Your task to perform on an android device: open app "VLC for Android" (install if not already installed) and enter user name: "Yves@outlook.com" and password: "internally" Image 0: 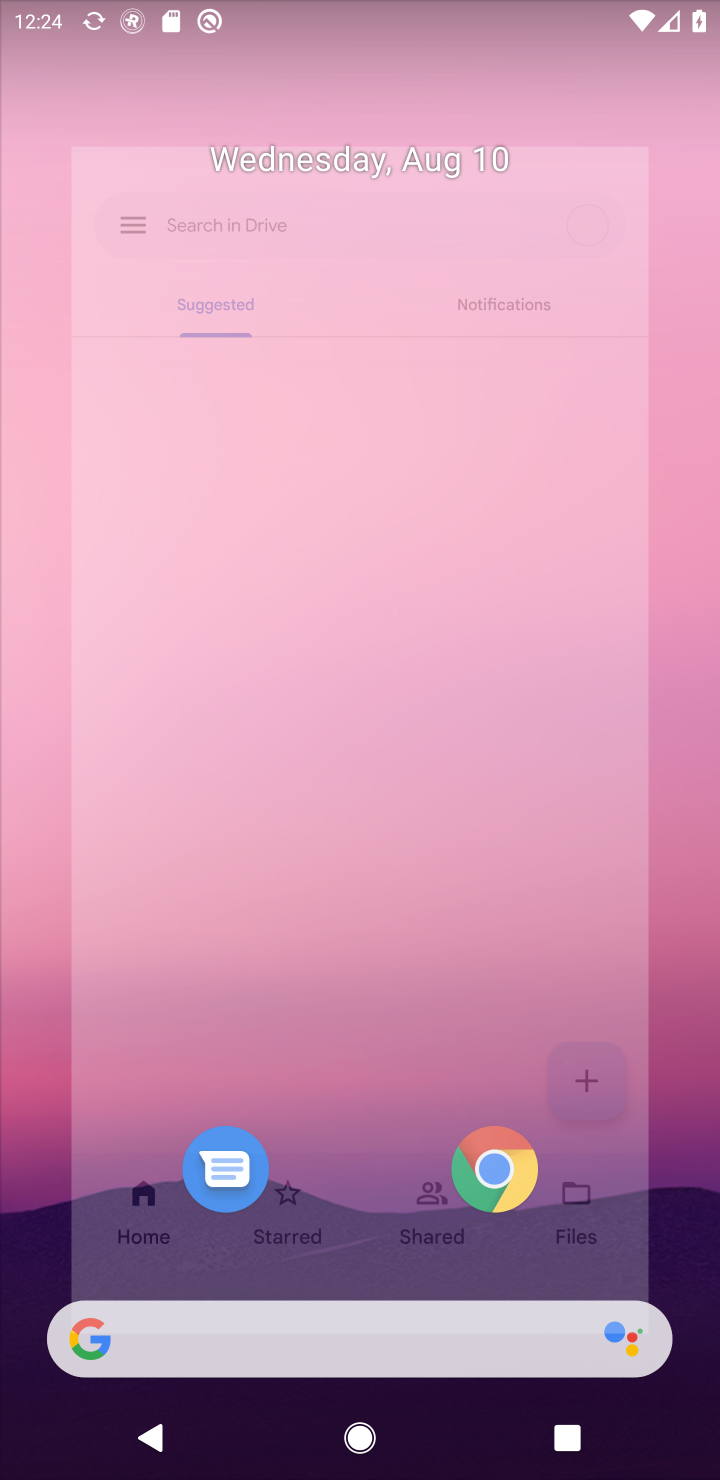
Step 0: press home button
Your task to perform on an android device: open app "VLC for Android" (install if not already installed) and enter user name: "Yves@outlook.com" and password: "internally" Image 1: 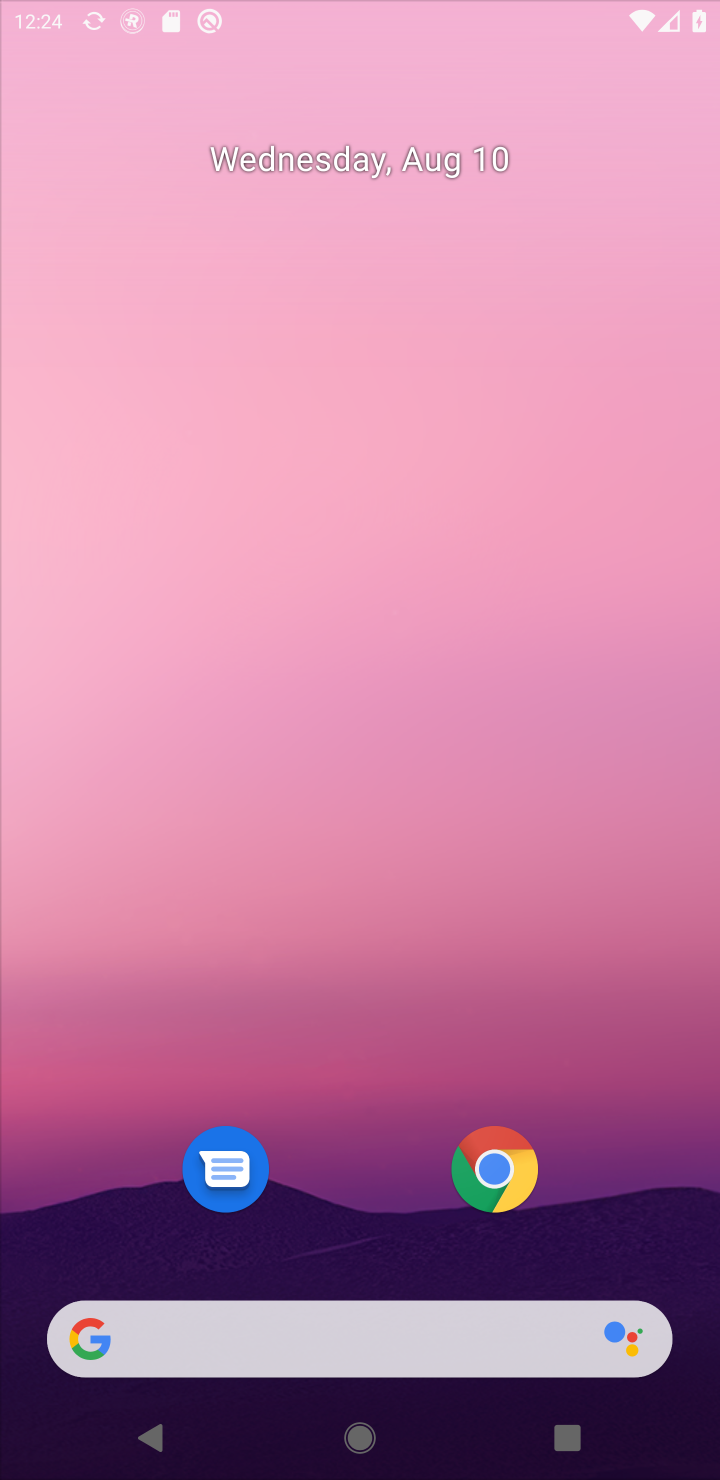
Step 1: press home button
Your task to perform on an android device: open app "VLC for Android" (install if not already installed) and enter user name: "Yves@outlook.com" and password: "internally" Image 2: 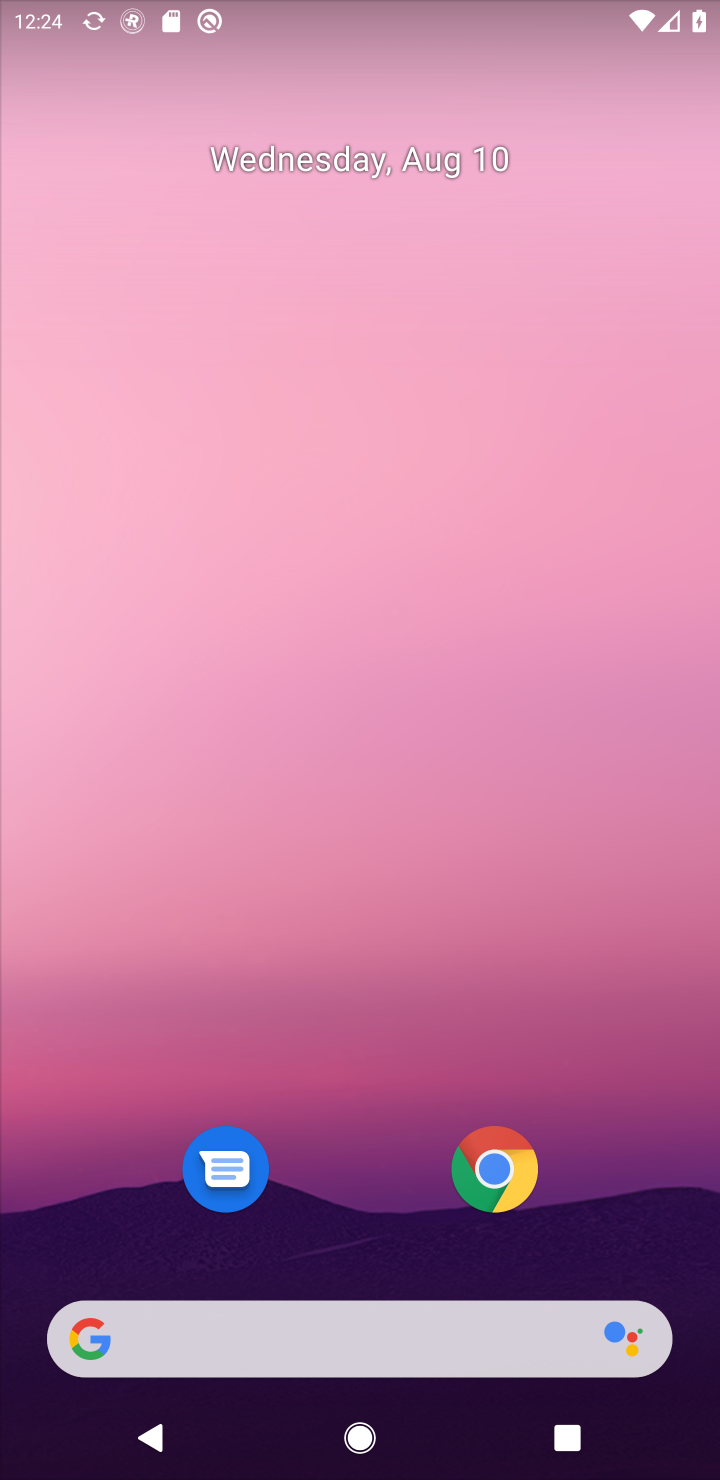
Step 2: drag from (636, 1148) to (636, 126)
Your task to perform on an android device: open app "VLC for Android" (install if not already installed) and enter user name: "Yves@outlook.com" and password: "internally" Image 3: 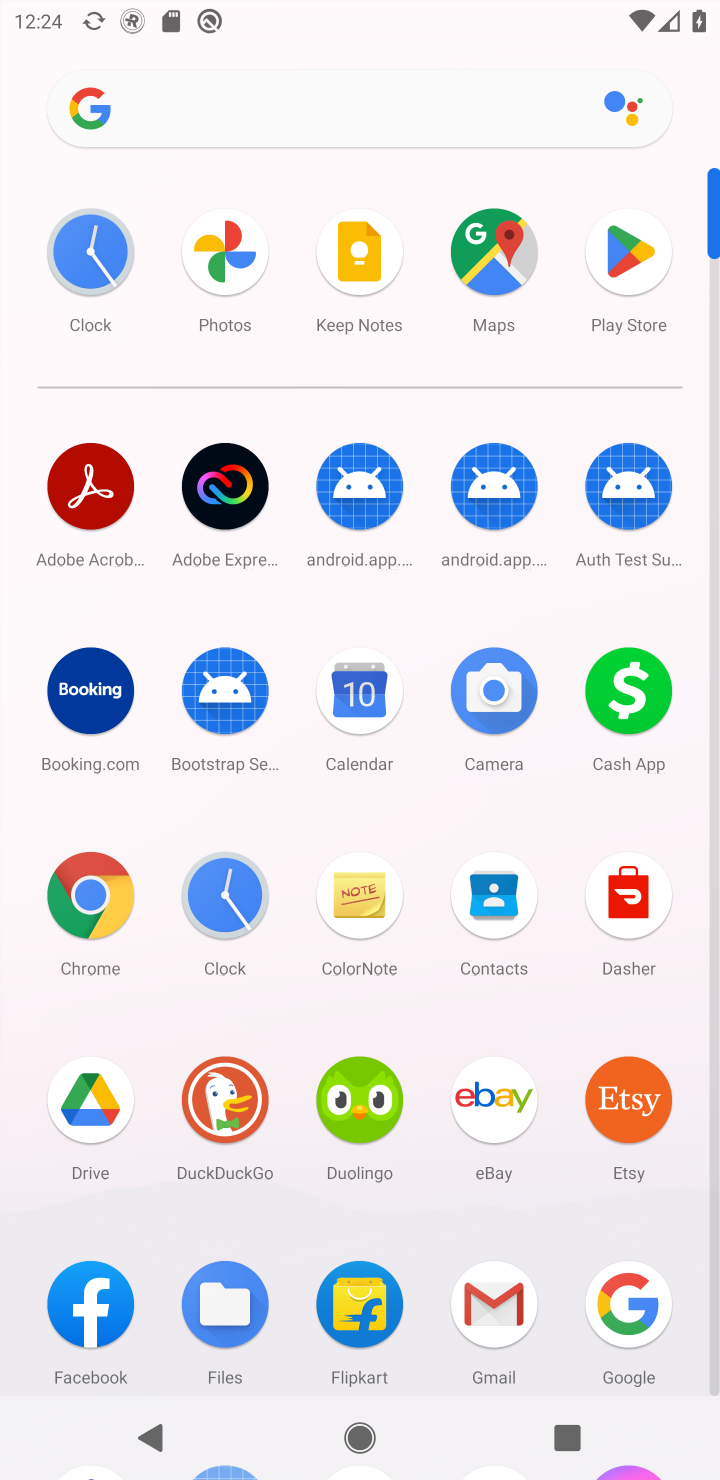
Step 3: click (622, 255)
Your task to perform on an android device: open app "VLC for Android" (install if not already installed) and enter user name: "Yves@outlook.com" and password: "internally" Image 4: 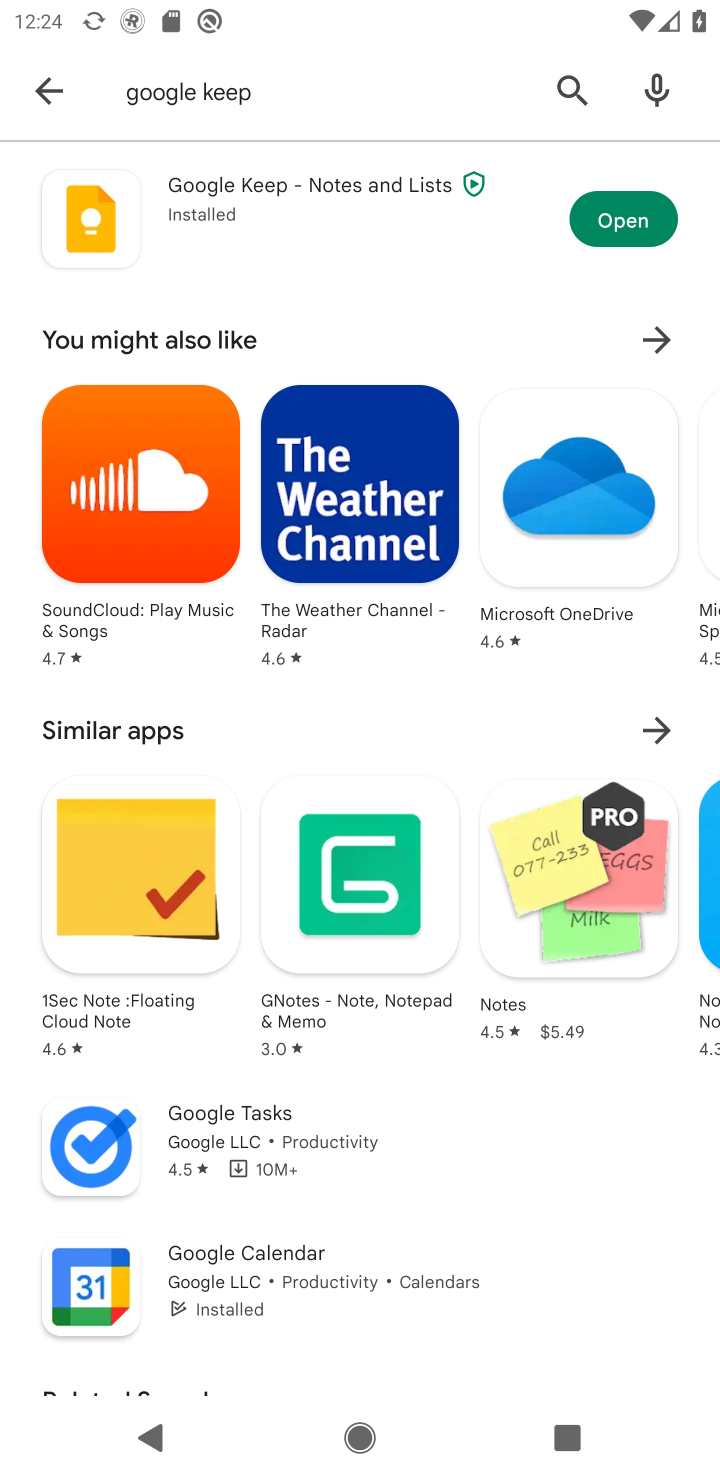
Step 4: click (568, 82)
Your task to perform on an android device: open app "VLC for Android" (install if not already installed) and enter user name: "Yves@outlook.com" and password: "internally" Image 5: 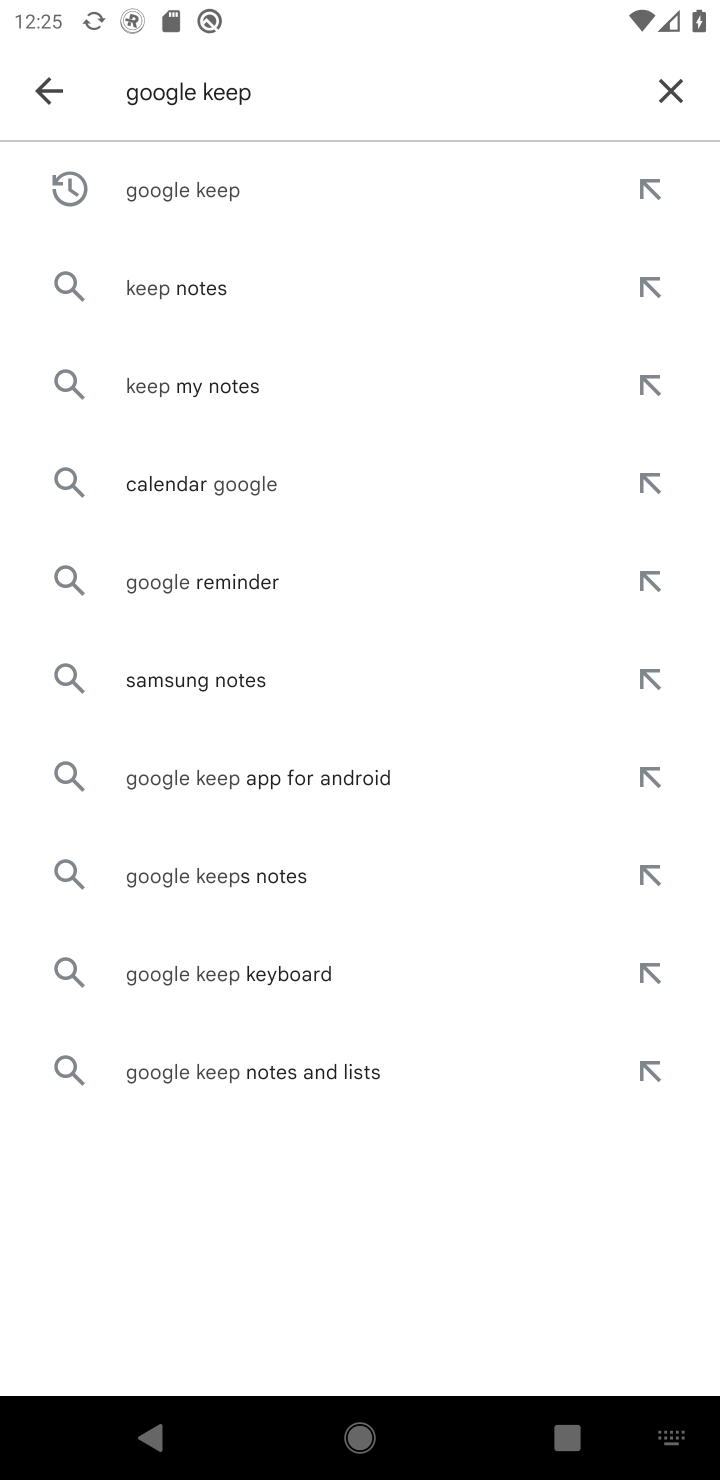
Step 5: click (668, 87)
Your task to perform on an android device: open app "VLC for Android" (install if not already installed) and enter user name: "Yves@outlook.com" and password: "internally" Image 6: 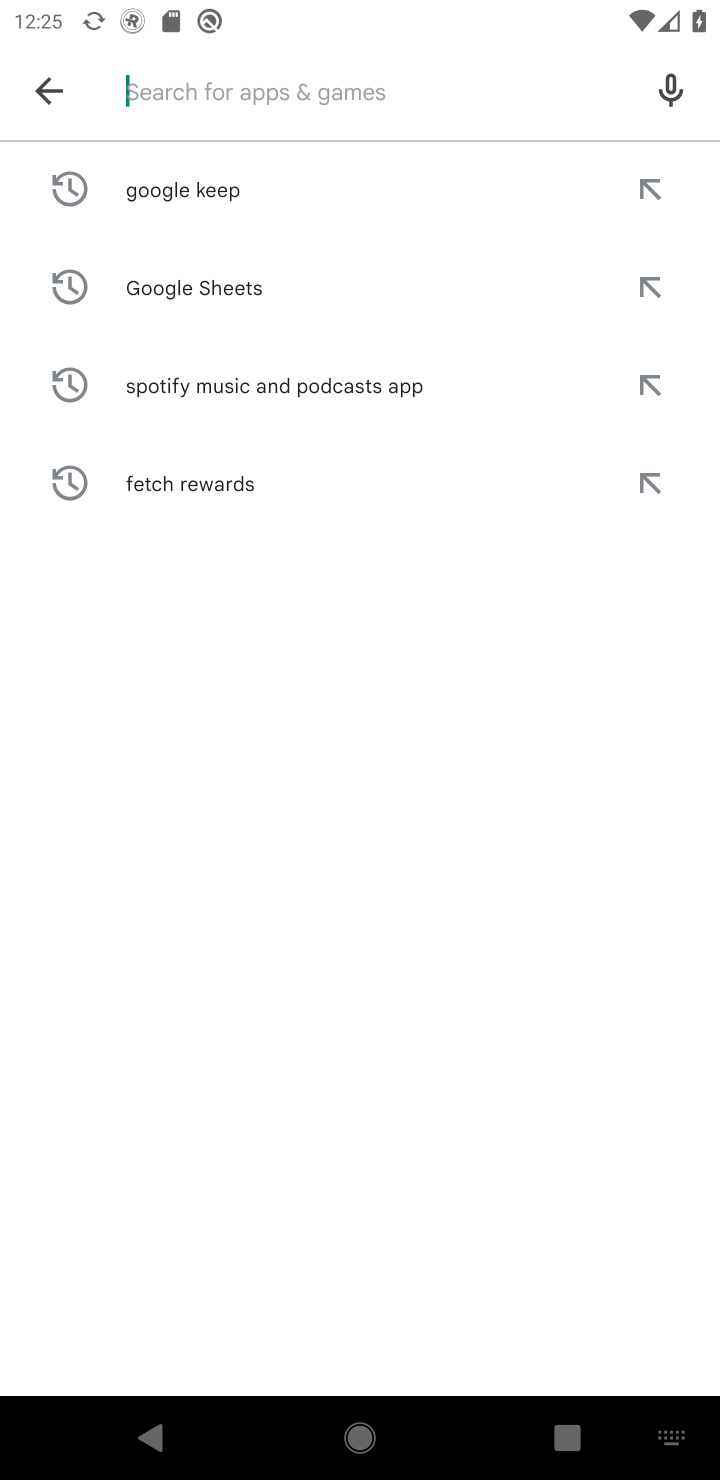
Step 6: press enter
Your task to perform on an android device: open app "VLC for Android" (install if not already installed) and enter user name: "Yves@outlook.com" and password: "internally" Image 7: 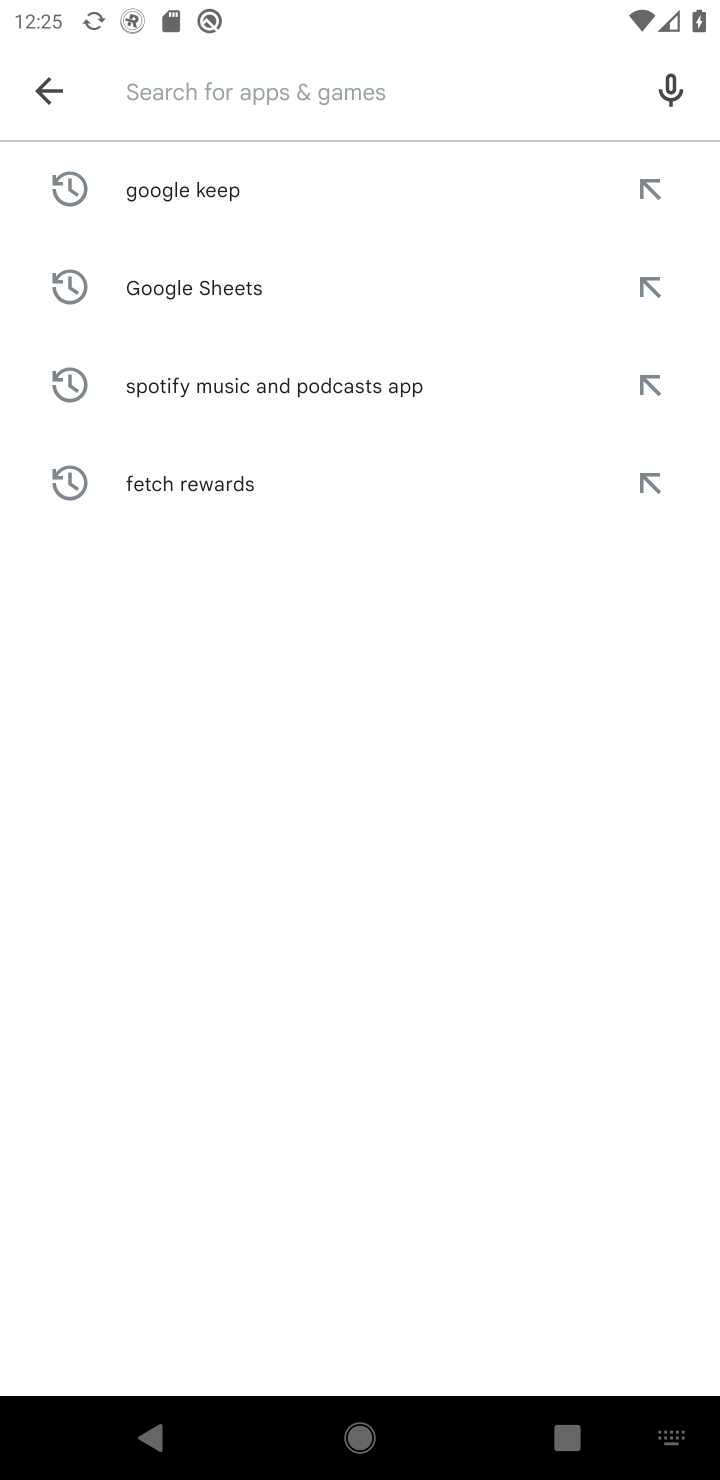
Step 7: type "vlc for android "
Your task to perform on an android device: open app "VLC for Android" (install if not already installed) and enter user name: "Yves@outlook.com" and password: "internally" Image 8: 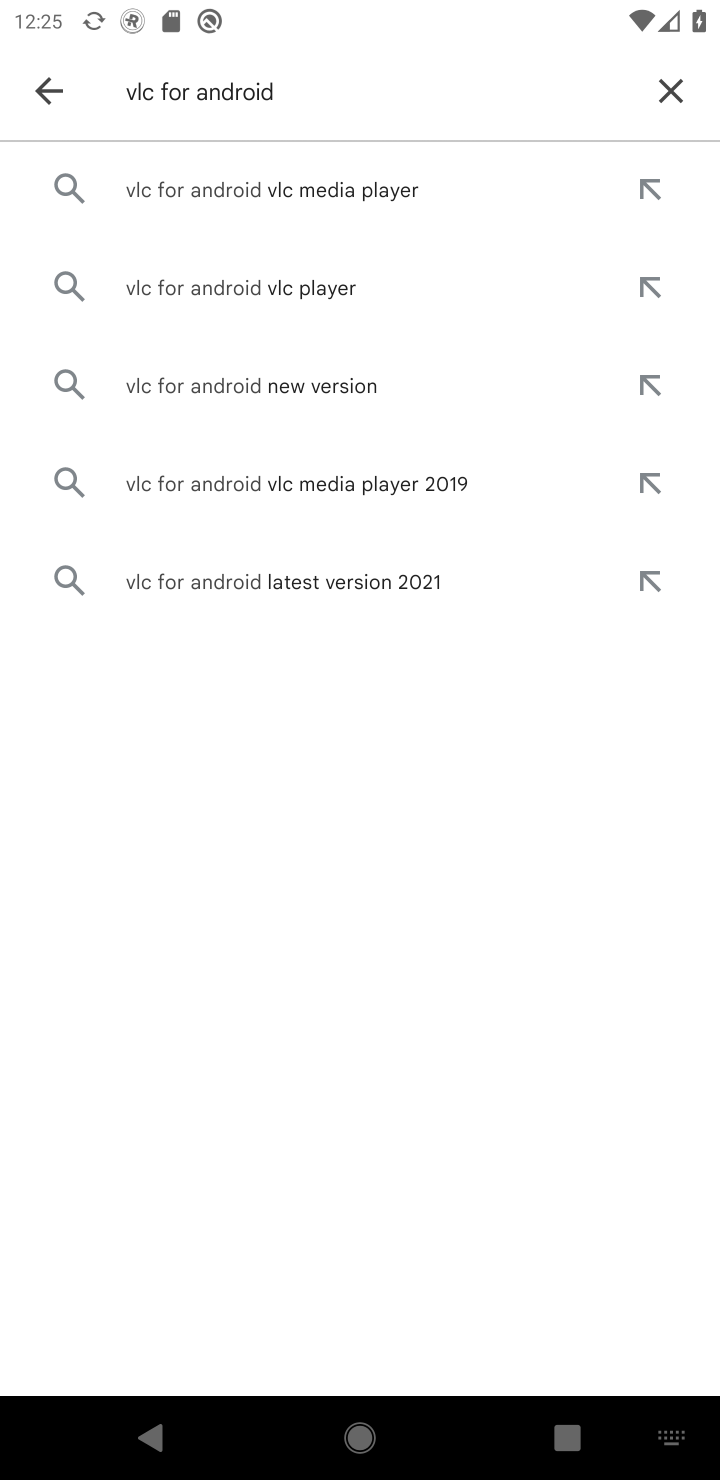
Step 8: click (360, 292)
Your task to perform on an android device: open app "VLC for Android" (install if not already installed) and enter user name: "Yves@outlook.com" and password: "internally" Image 9: 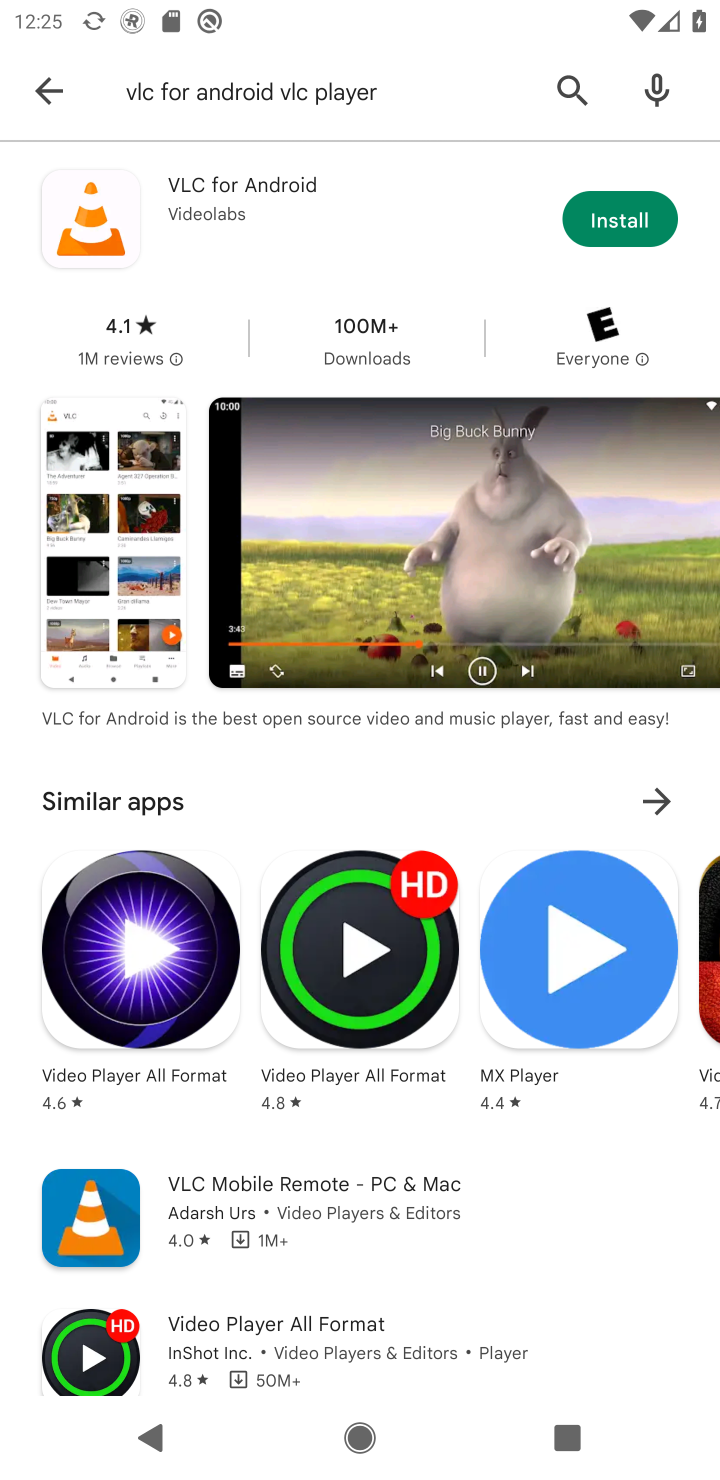
Step 9: click (641, 217)
Your task to perform on an android device: open app "VLC for Android" (install if not already installed) and enter user name: "Yves@outlook.com" and password: "internally" Image 10: 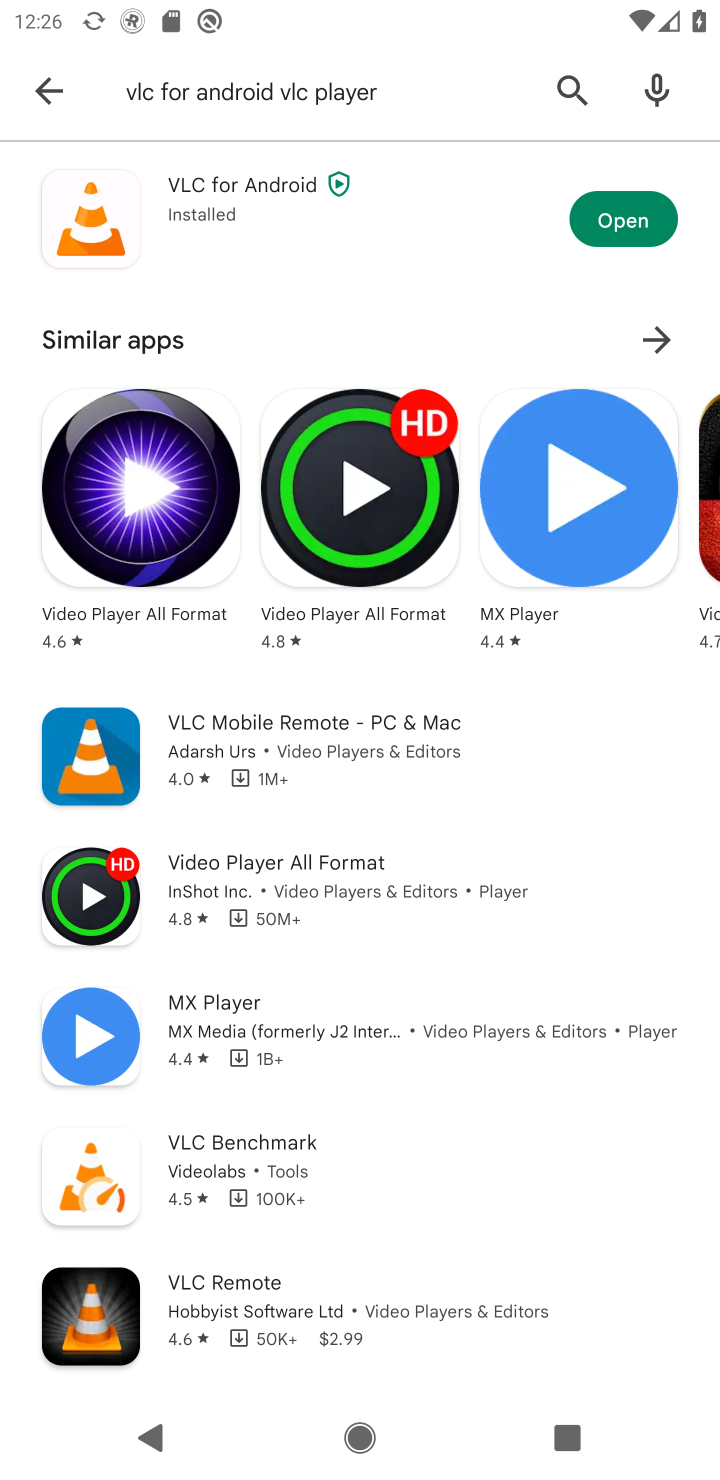
Step 10: click (630, 218)
Your task to perform on an android device: open app "VLC for Android" (install if not already installed) and enter user name: "Yves@outlook.com" and password: "internally" Image 11: 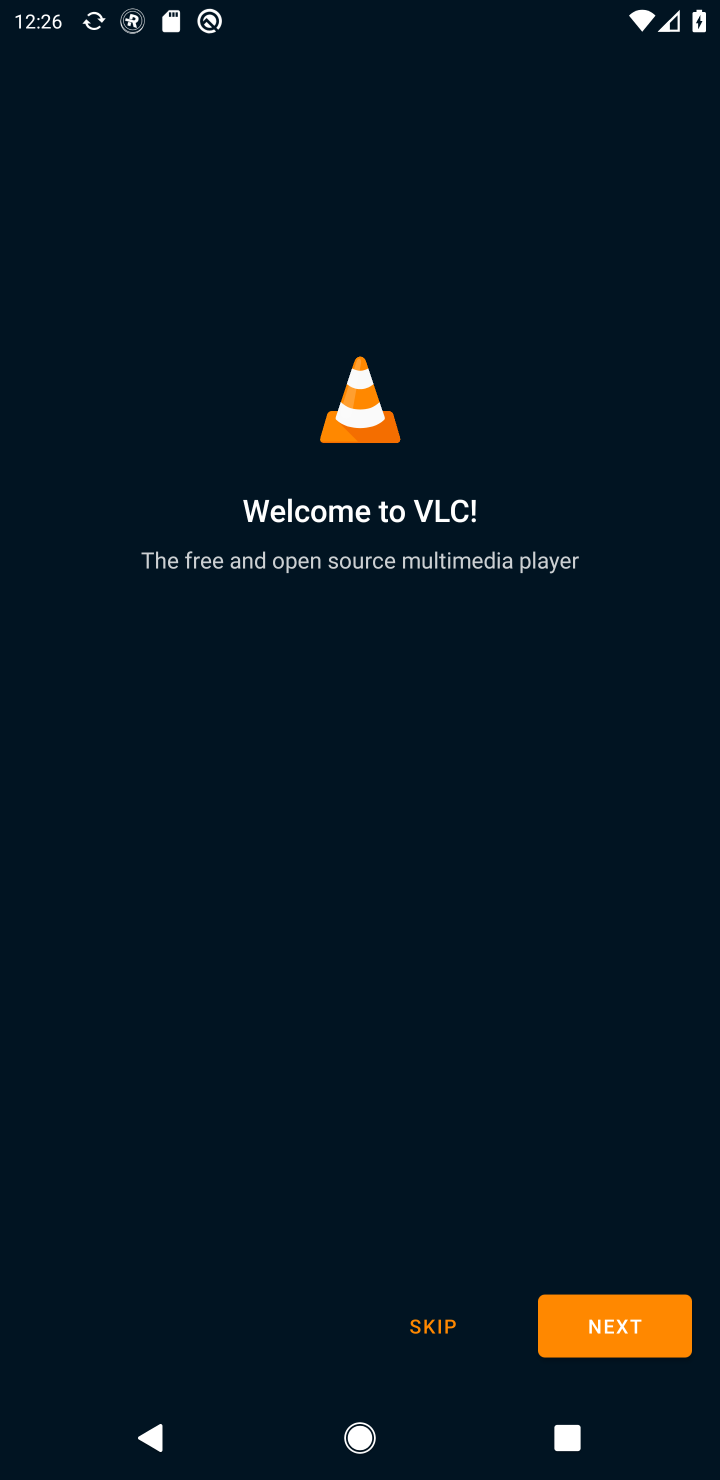
Step 11: click (425, 1332)
Your task to perform on an android device: open app "VLC for Android" (install if not already installed) and enter user name: "Yves@outlook.com" and password: "internally" Image 12: 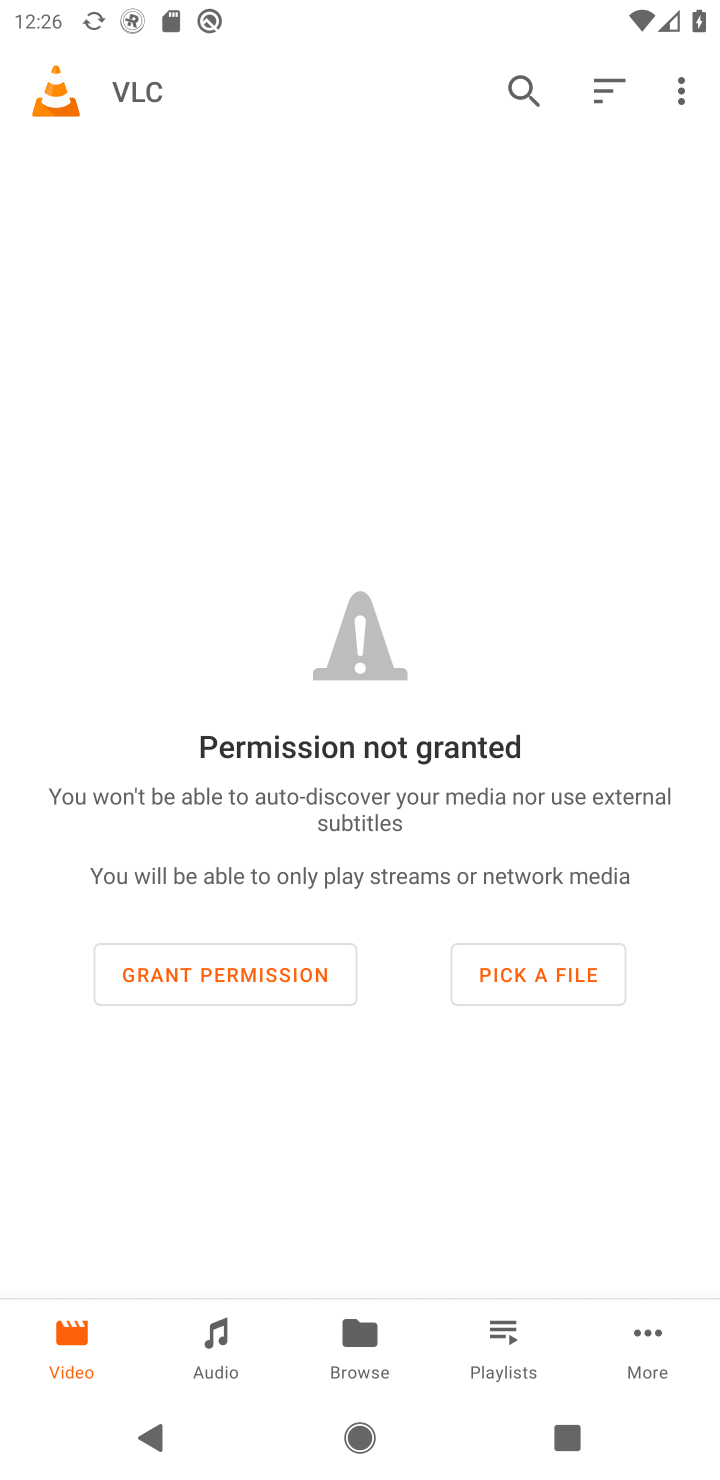
Step 12: click (684, 97)
Your task to perform on an android device: open app "VLC for Android" (install if not already installed) and enter user name: "Yves@outlook.com" and password: "internally" Image 13: 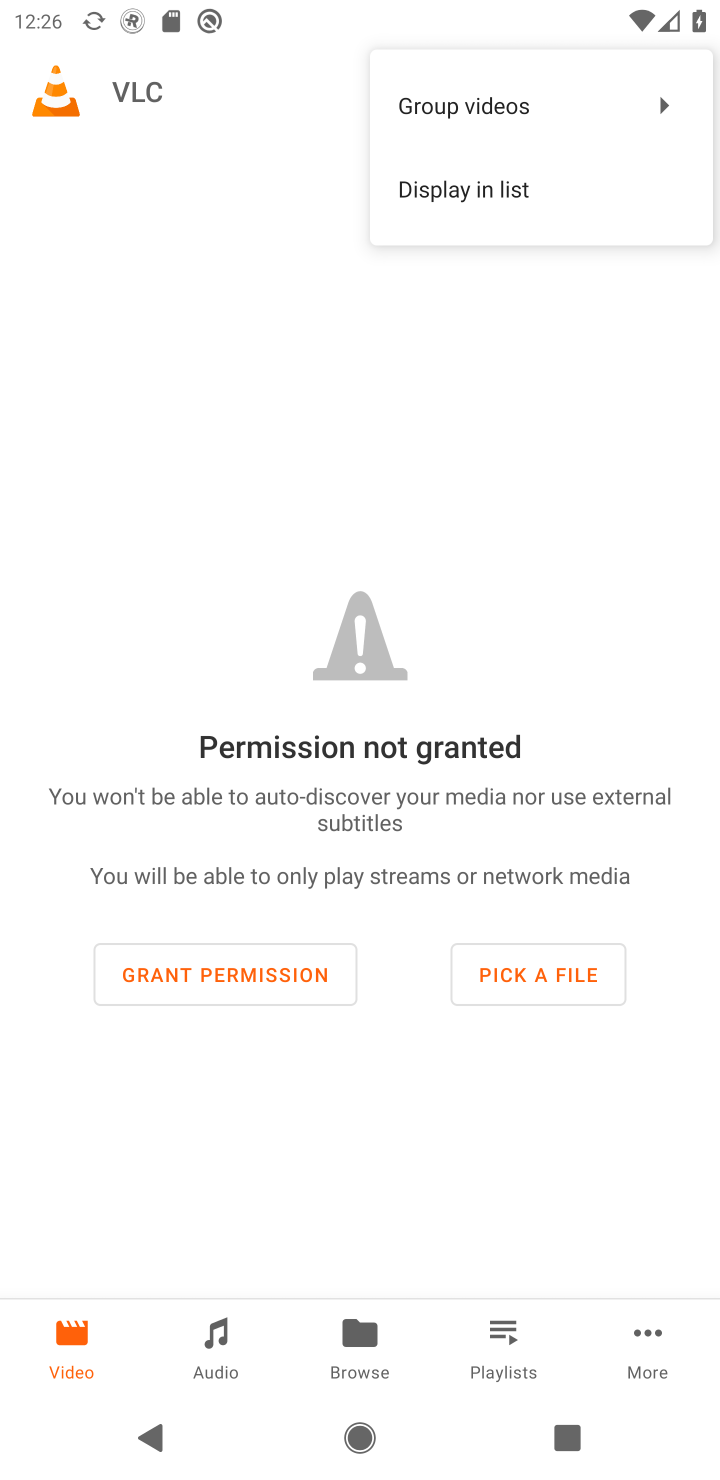
Step 13: click (620, 360)
Your task to perform on an android device: open app "VLC for Android" (install if not already installed) and enter user name: "Yves@outlook.com" and password: "internally" Image 14: 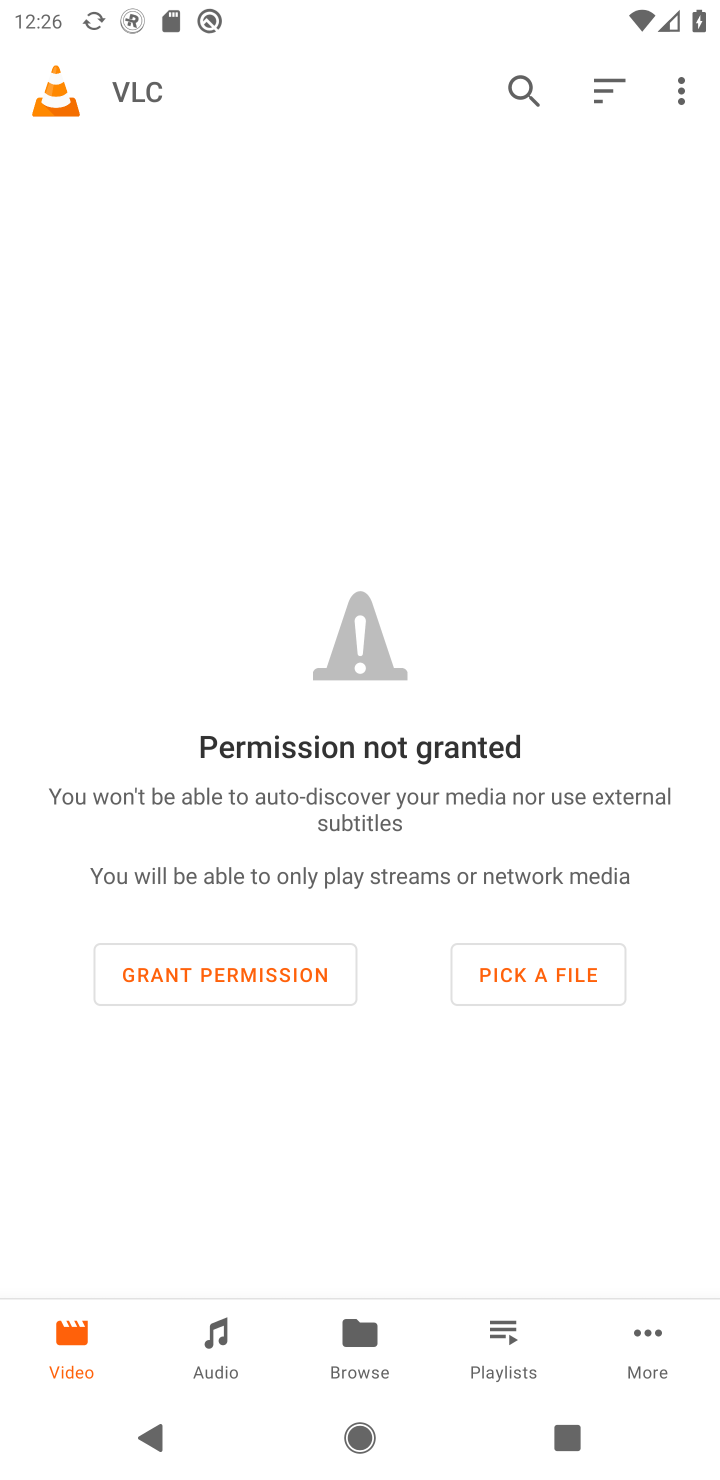
Step 14: click (646, 1361)
Your task to perform on an android device: open app "VLC for Android" (install if not already installed) and enter user name: "Yves@outlook.com" and password: "internally" Image 15: 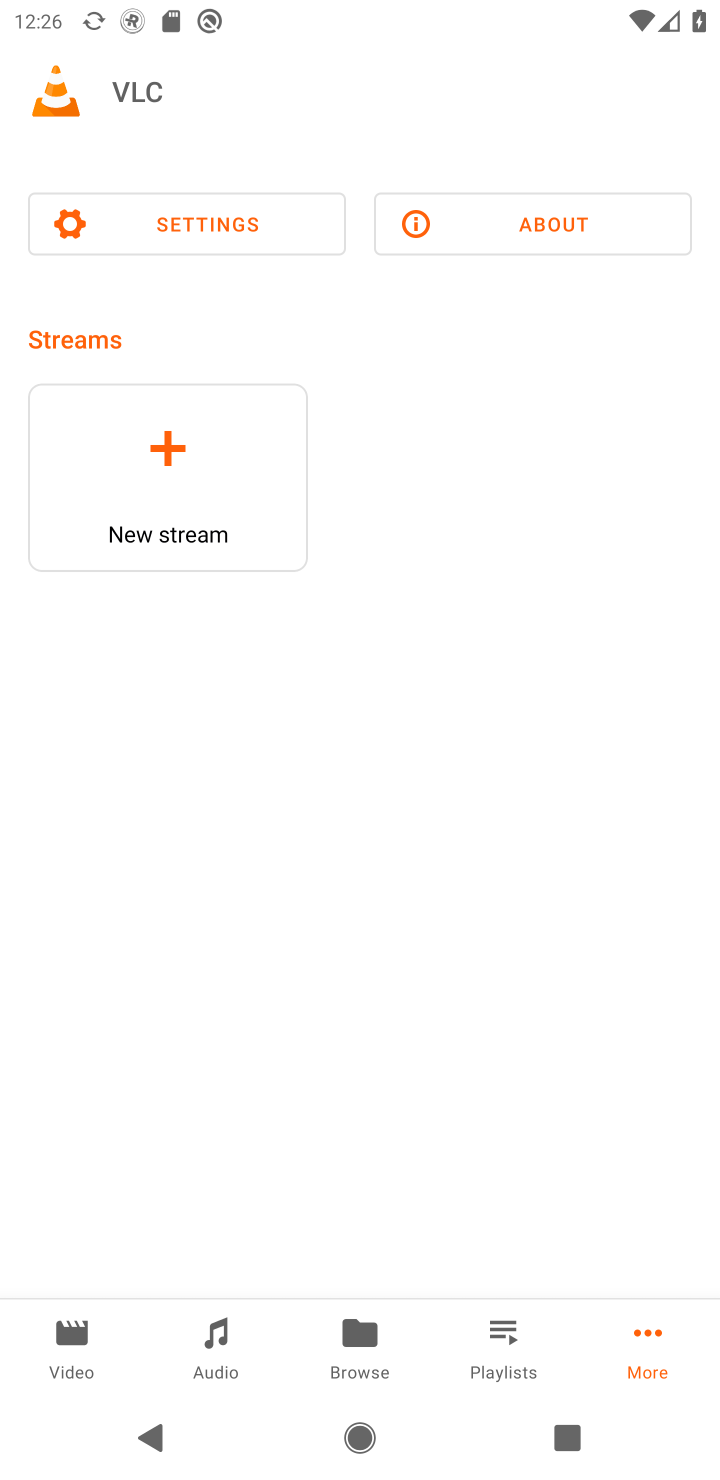
Step 15: task complete